Your task to perform on an android device: check android version Image 0: 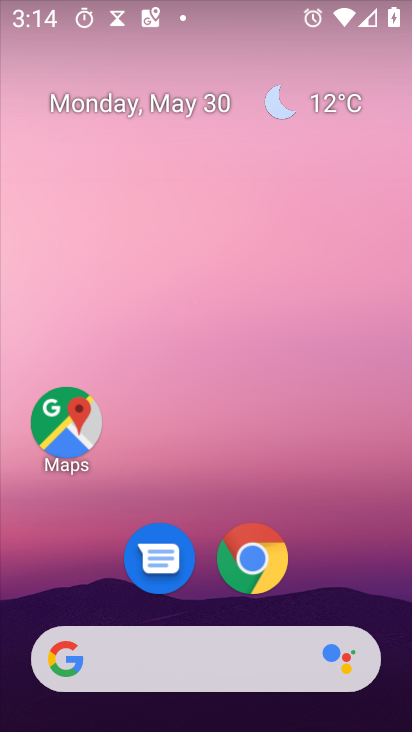
Step 0: drag from (180, 494) to (264, 35)
Your task to perform on an android device: check android version Image 1: 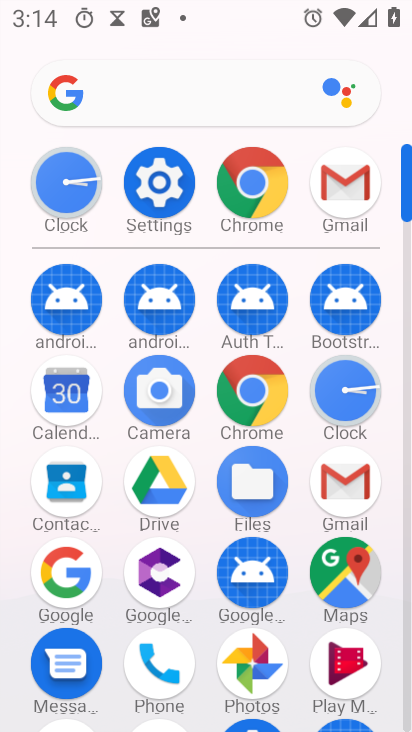
Step 1: click (163, 197)
Your task to perform on an android device: check android version Image 2: 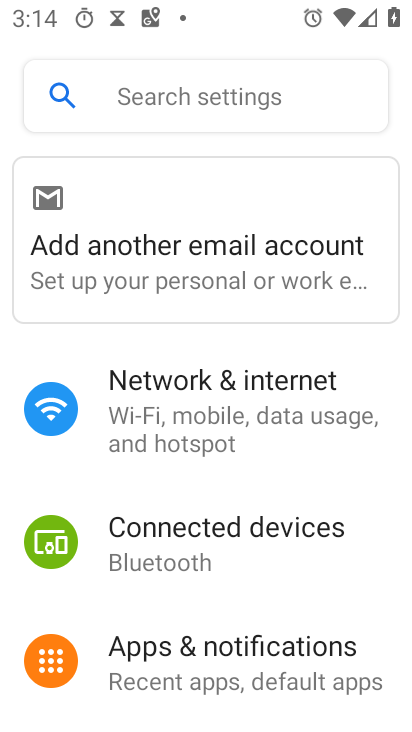
Step 2: drag from (193, 635) to (262, 177)
Your task to perform on an android device: check android version Image 3: 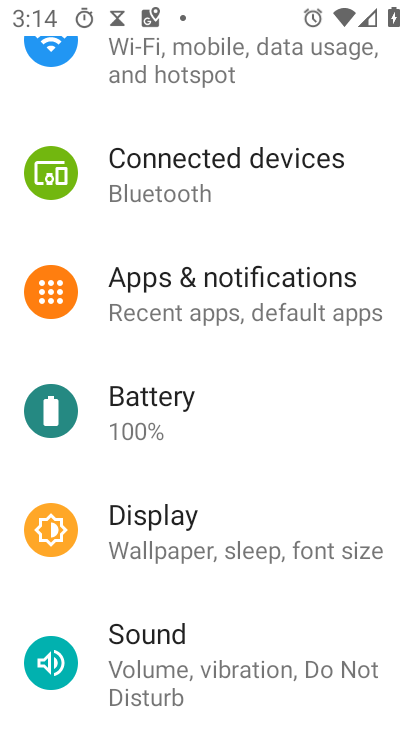
Step 3: drag from (171, 640) to (274, 118)
Your task to perform on an android device: check android version Image 4: 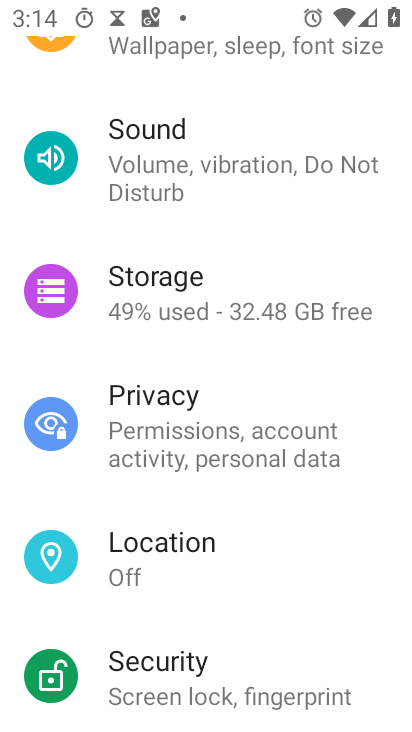
Step 4: drag from (202, 649) to (356, 0)
Your task to perform on an android device: check android version Image 5: 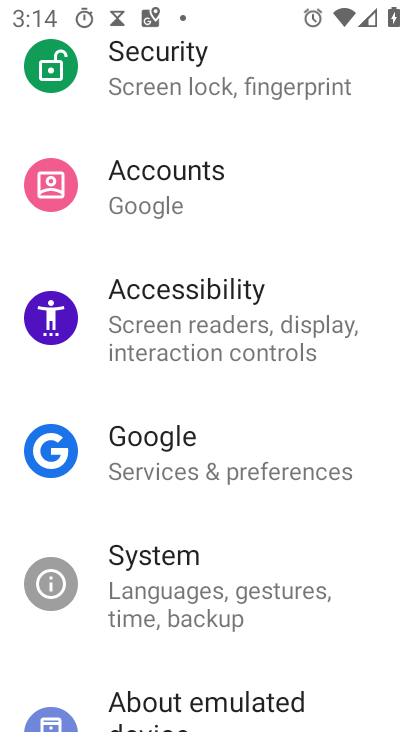
Step 5: drag from (180, 613) to (312, 41)
Your task to perform on an android device: check android version Image 6: 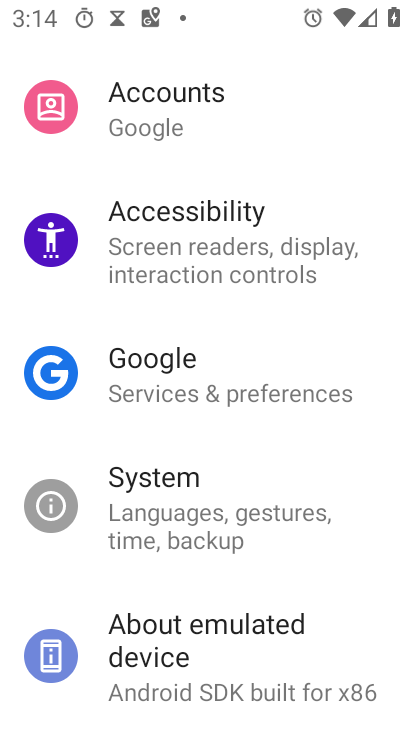
Step 6: click (195, 640)
Your task to perform on an android device: check android version Image 7: 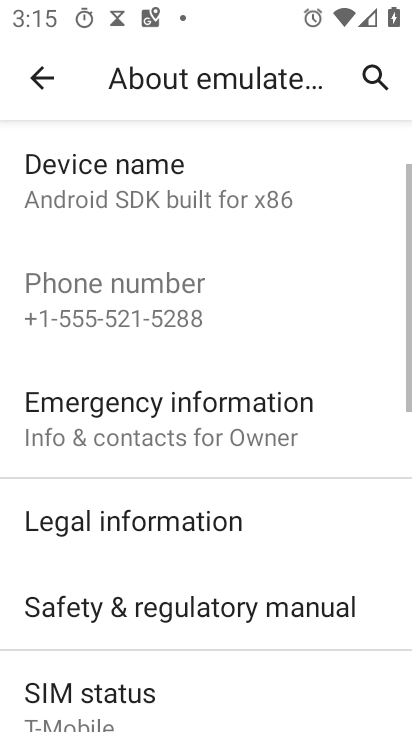
Step 7: drag from (130, 597) to (282, 103)
Your task to perform on an android device: check android version Image 8: 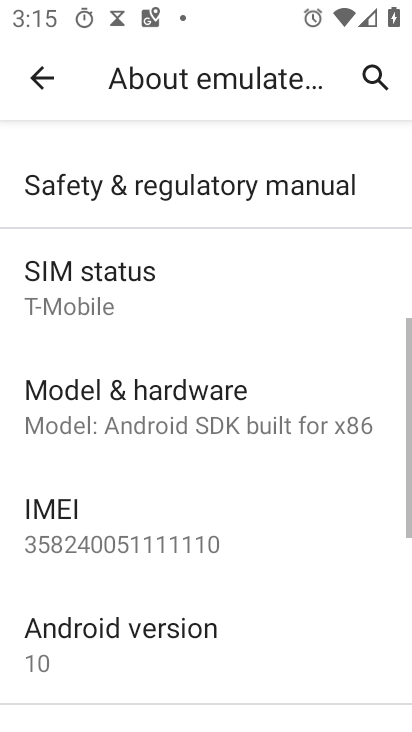
Step 8: click (144, 631)
Your task to perform on an android device: check android version Image 9: 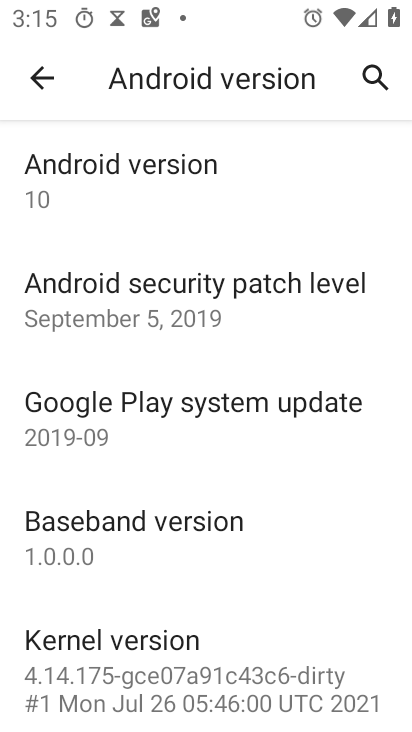
Step 9: task complete